Your task to perform on an android device: show emergency info Image 0: 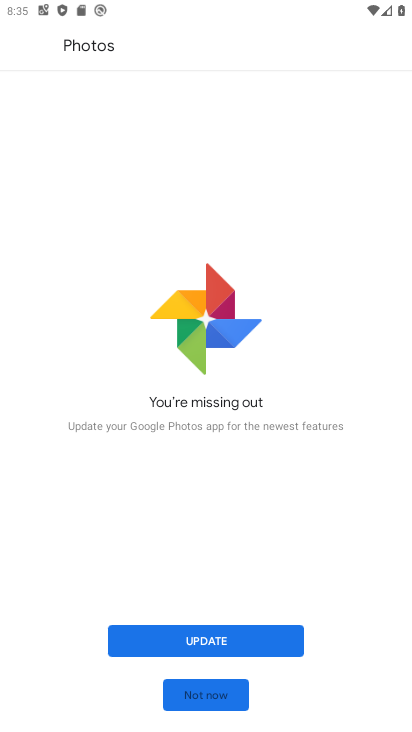
Step 0: press home button
Your task to perform on an android device: show emergency info Image 1: 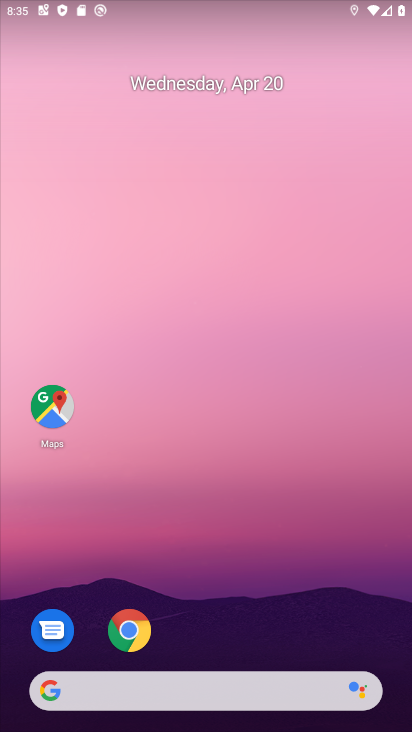
Step 1: drag from (201, 593) to (261, 207)
Your task to perform on an android device: show emergency info Image 2: 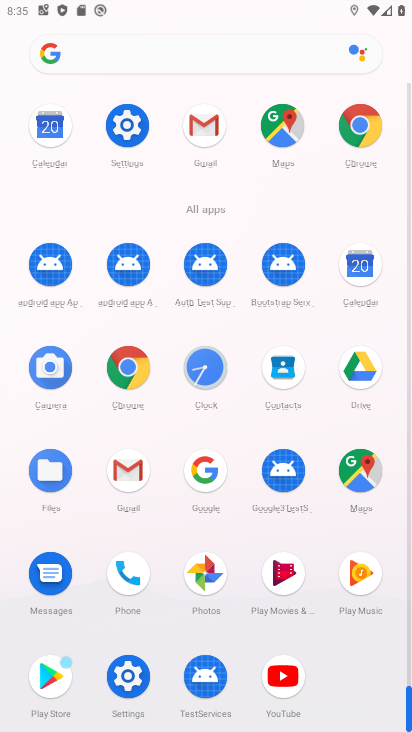
Step 2: click (120, 680)
Your task to perform on an android device: show emergency info Image 3: 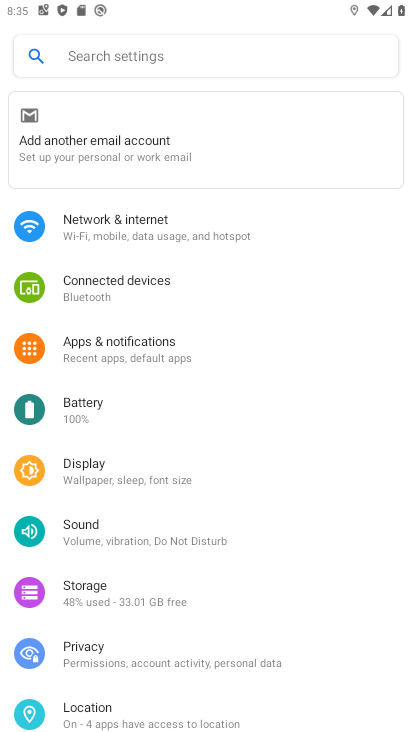
Step 3: drag from (127, 620) to (251, 135)
Your task to perform on an android device: show emergency info Image 4: 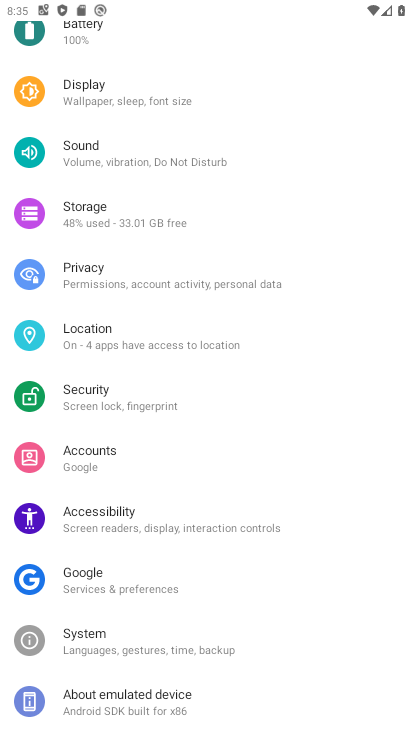
Step 4: click (103, 701)
Your task to perform on an android device: show emergency info Image 5: 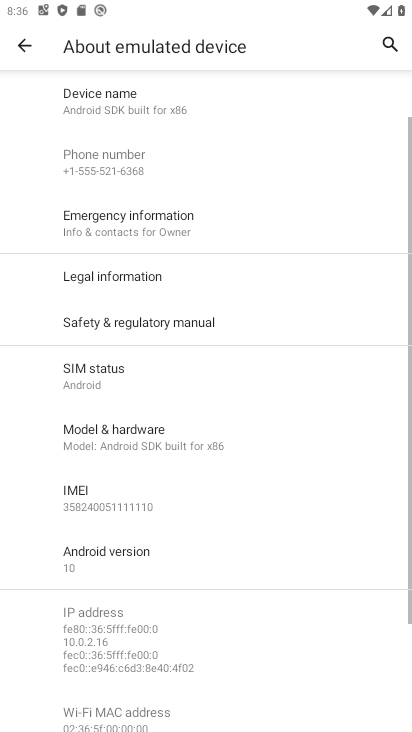
Step 5: click (132, 234)
Your task to perform on an android device: show emergency info Image 6: 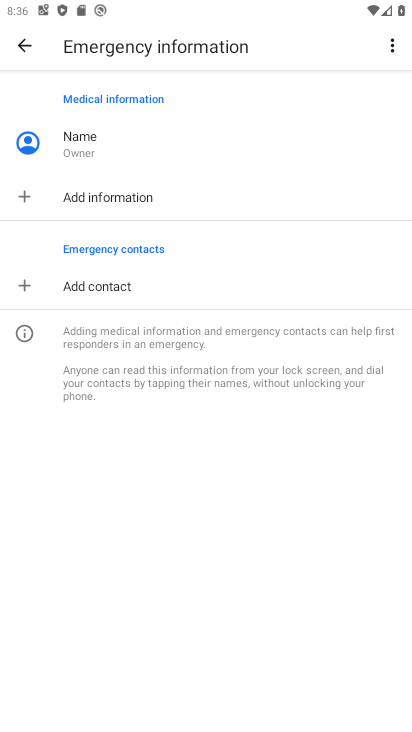
Step 6: task complete